Your task to perform on an android device: Show the shopping cart on costco.com. Image 0: 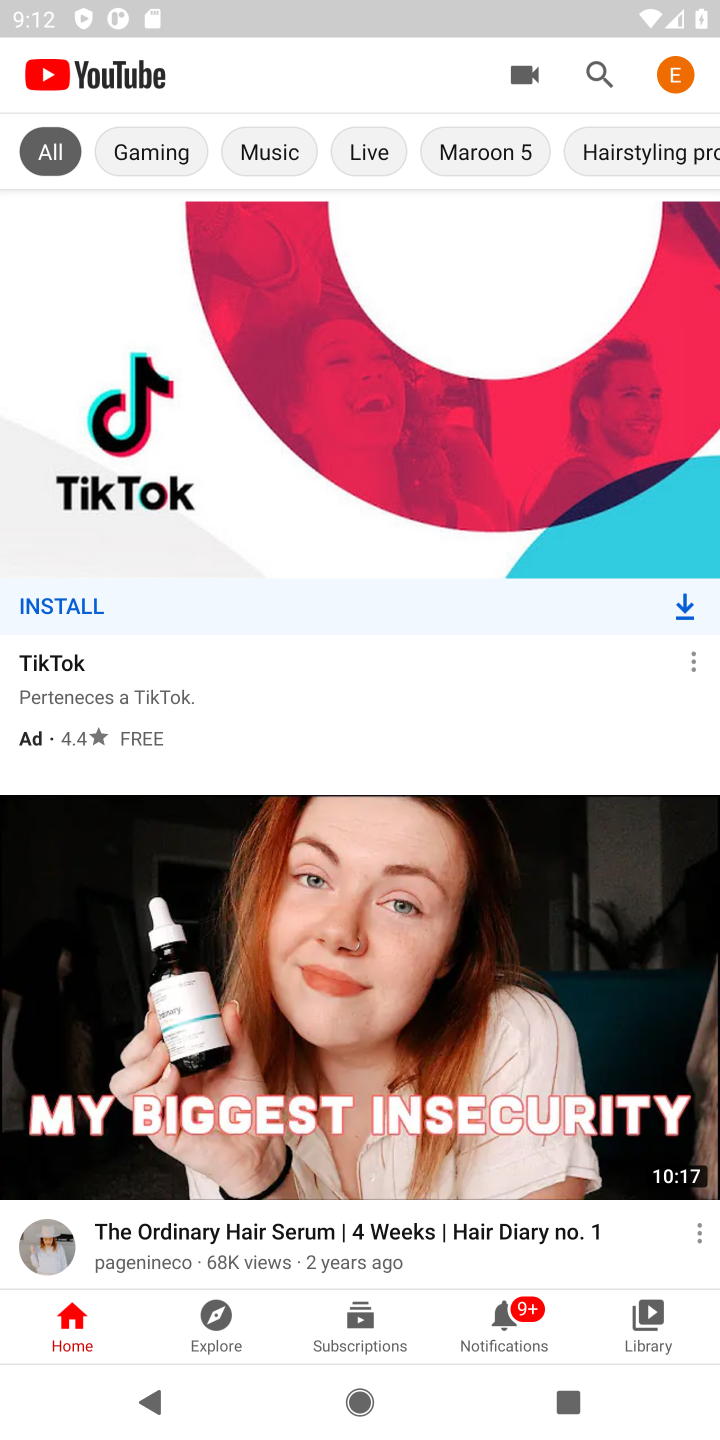
Step 0: press home button
Your task to perform on an android device: Show the shopping cart on costco.com. Image 1: 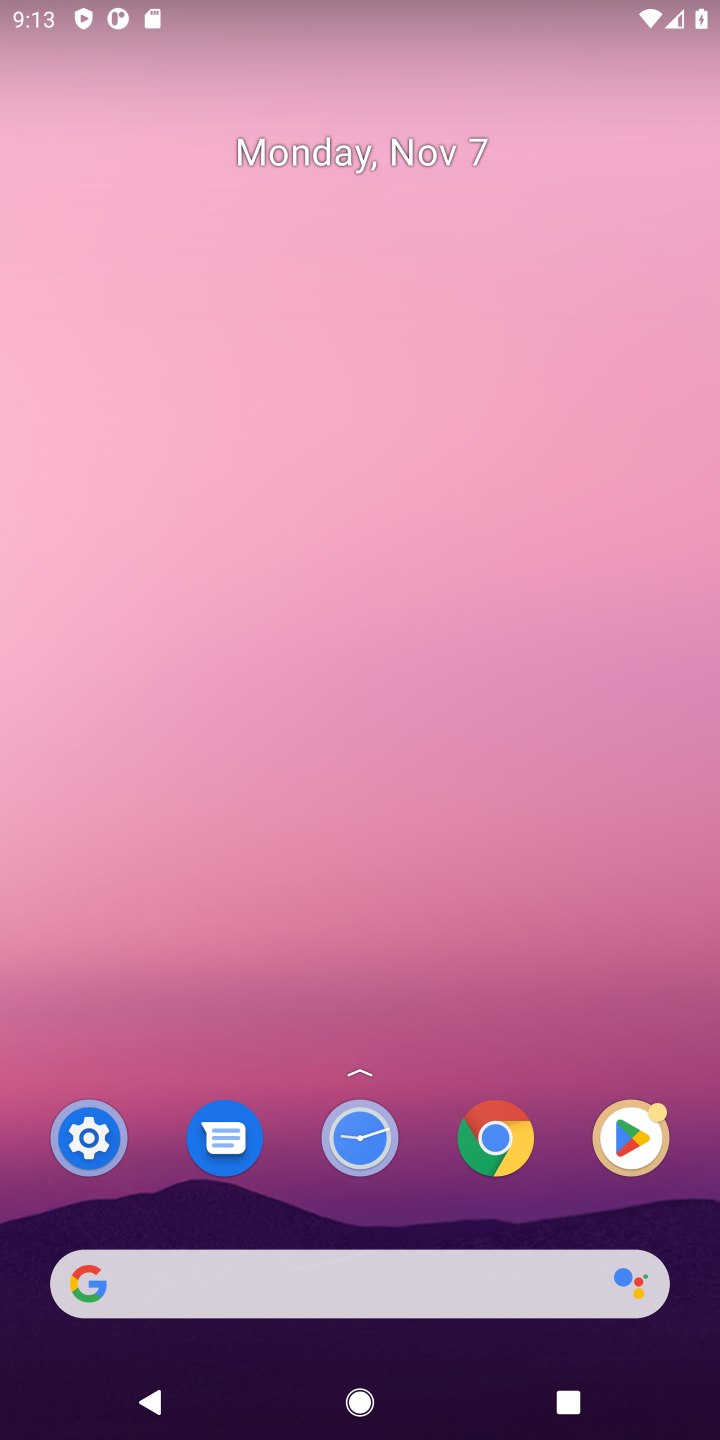
Step 1: drag from (373, 800) to (366, 458)
Your task to perform on an android device: Show the shopping cart on costco.com. Image 2: 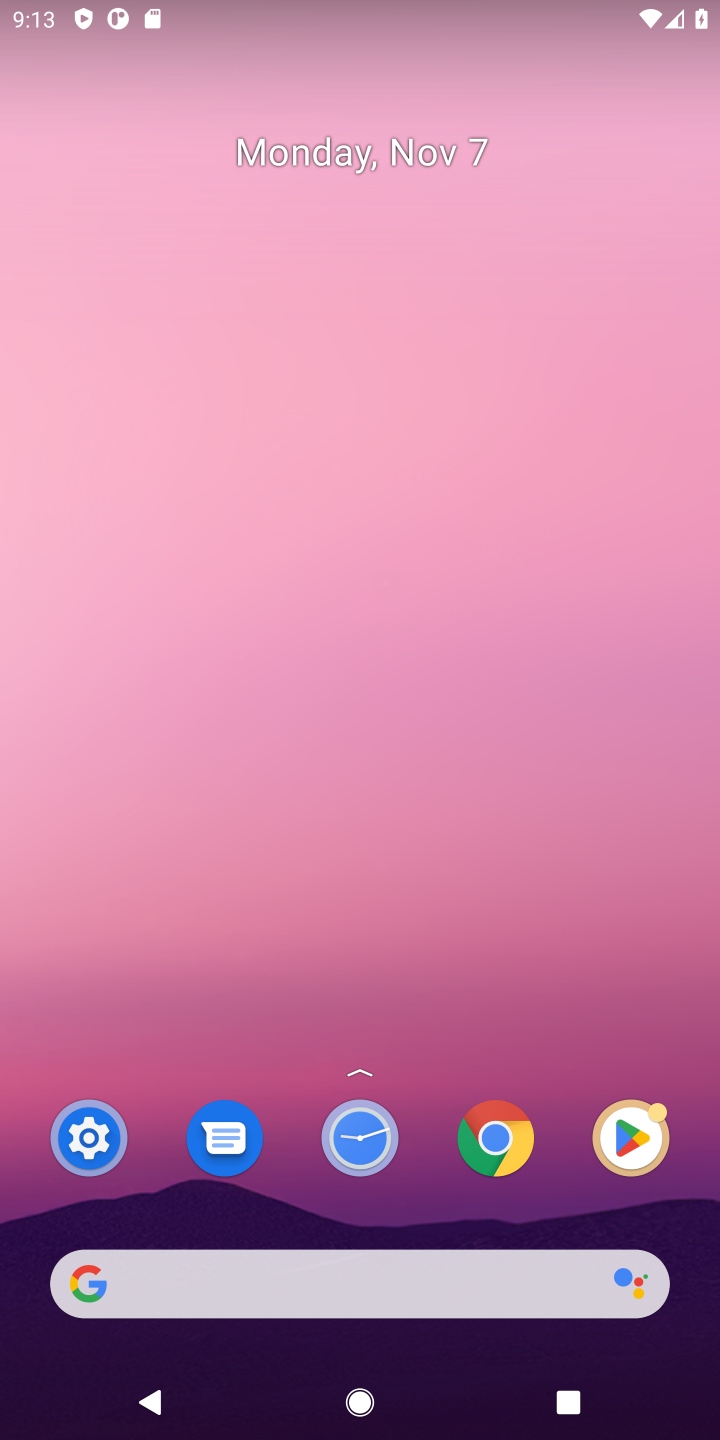
Step 2: drag from (297, 930) to (231, 162)
Your task to perform on an android device: Show the shopping cart on costco.com. Image 3: 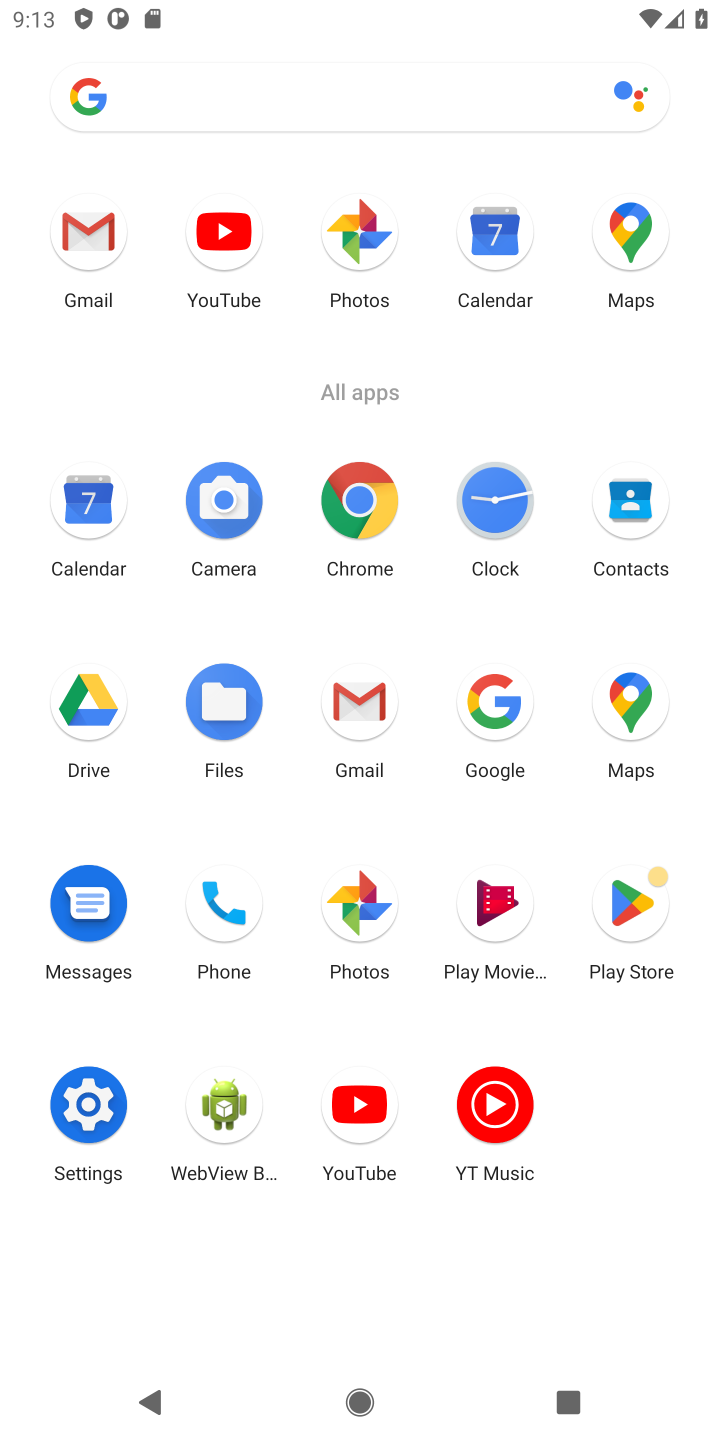
Step 3: click (501, 741)
Your task to perform on an android device: Show the shopping cart on costco.com. Image 4: 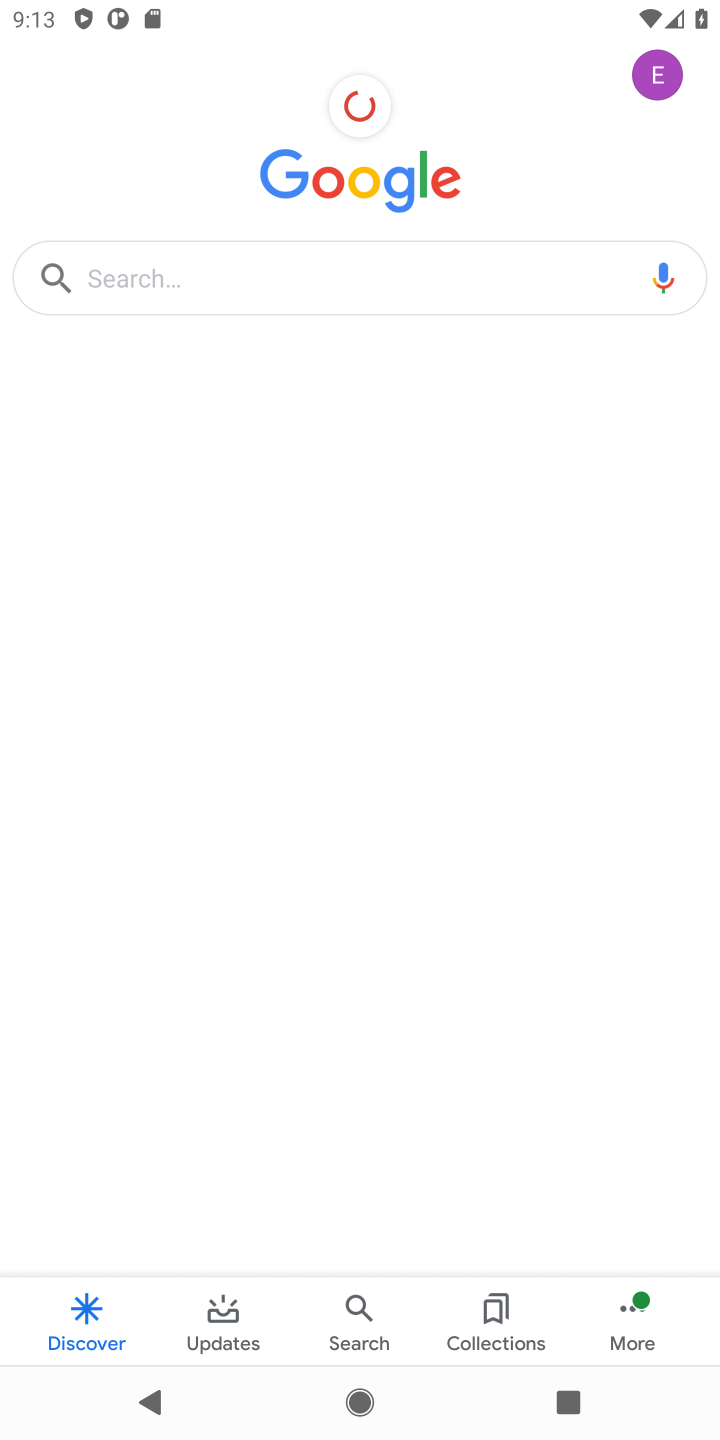
Step 4: click (392, 276)
Your task to perform on an android device: Show the shopping cart on costco.com. Image 5: 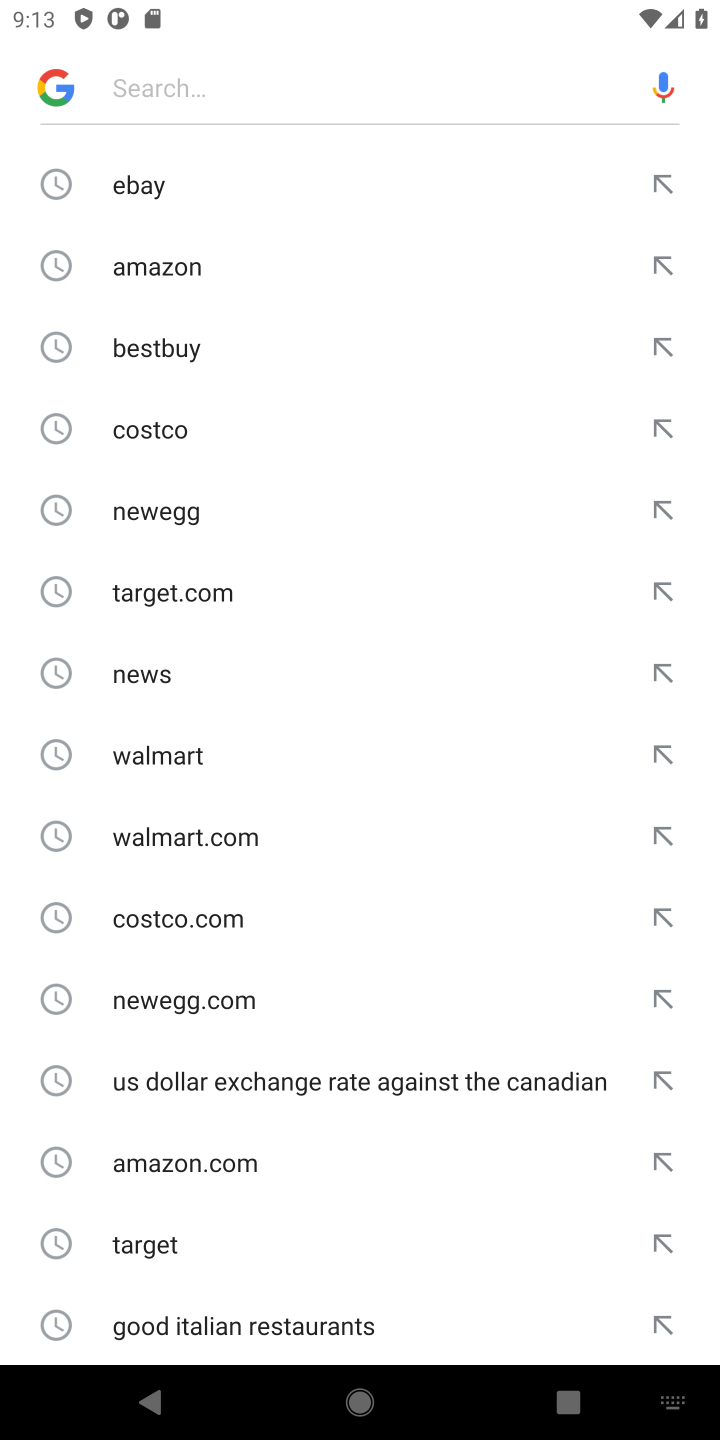
Step 5: type "costco.com"
Your task to perform on an android device: Show the shopping cart on costco.com. Image 6: 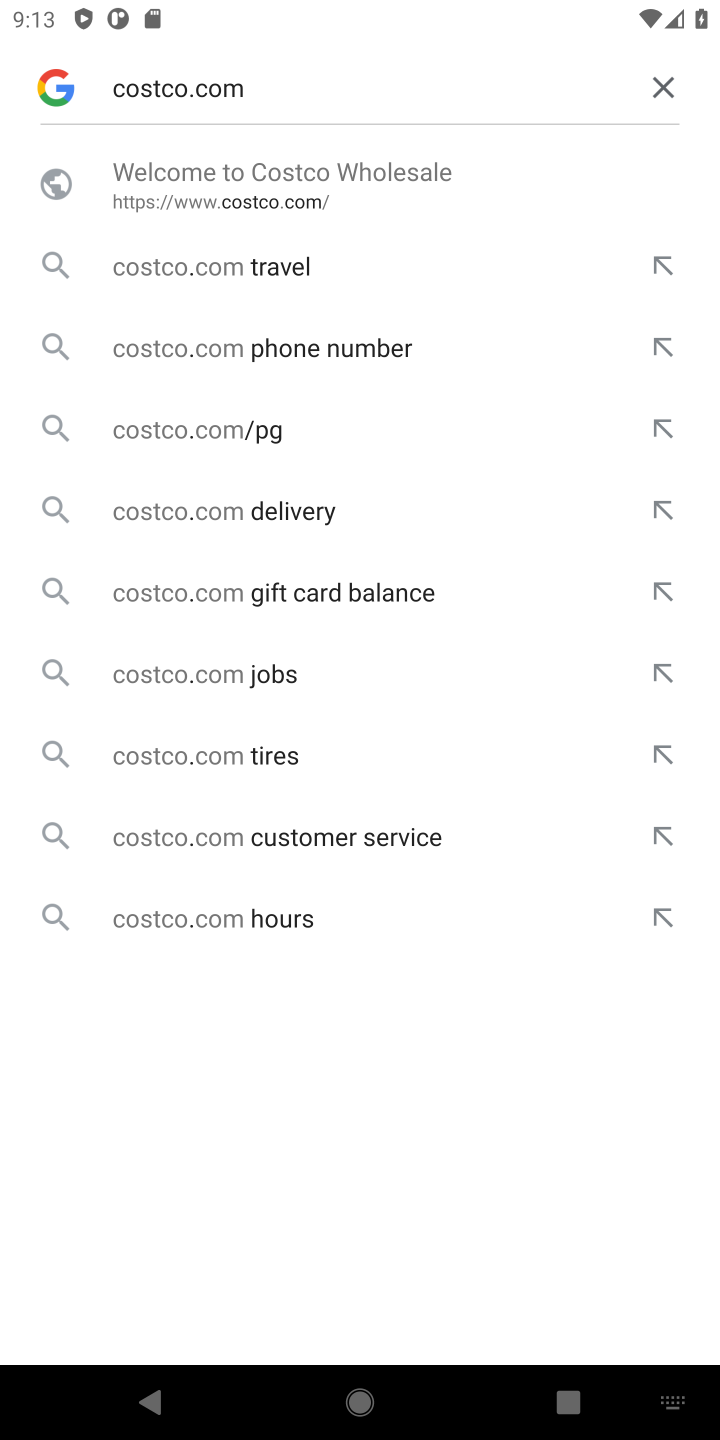
Step 6: click (386, 189)
Your task to perform on an android device: Show the shopping cart on costco.com. Image 7: 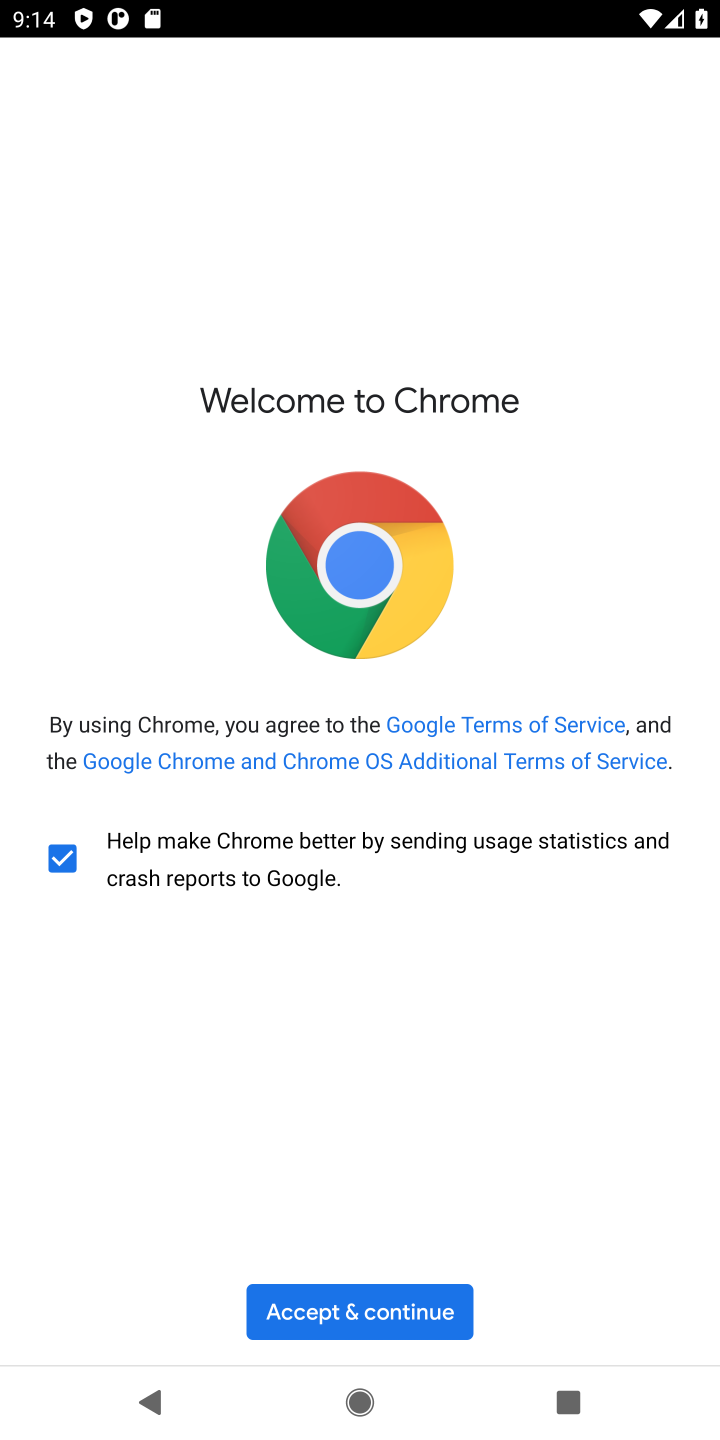
Step 7: click (409, 1330)
Your task to perform on an android device: Show the shopping cart on costco.com. Image 8: 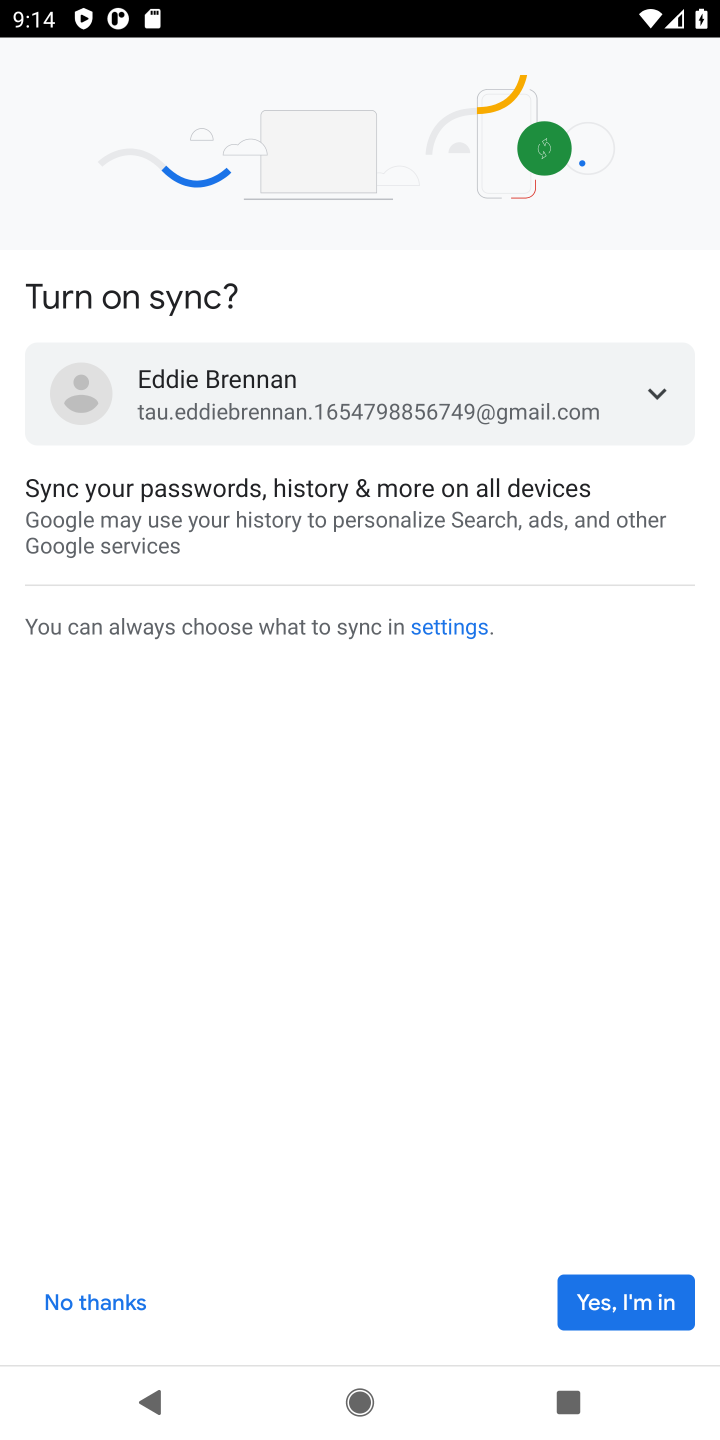
Step 8: click (621, 1313)
Your task to perform on an android device: Show the shopping cart on costco.com. Image 9: 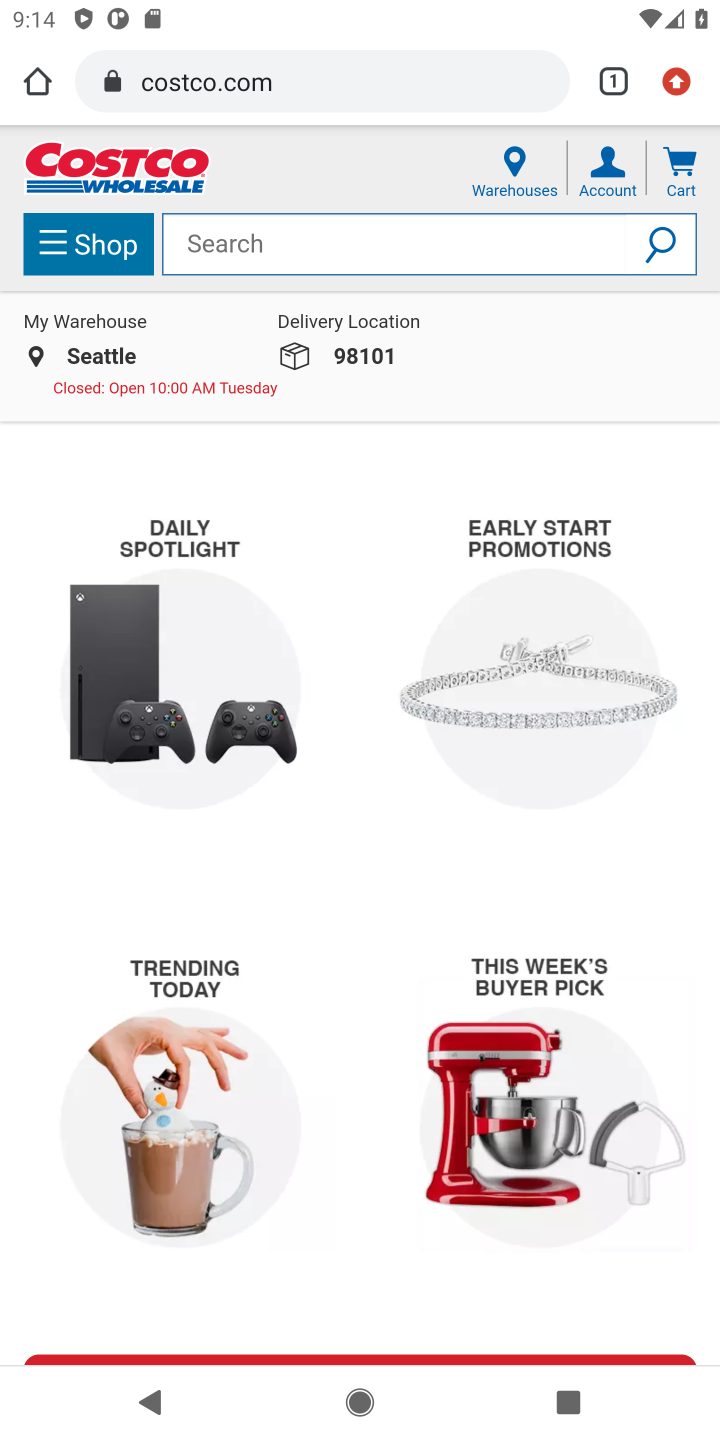
Step 9: click (690, 190)
Your task to perform on an android device: Show the shopping cart on costco.com. Image 10: 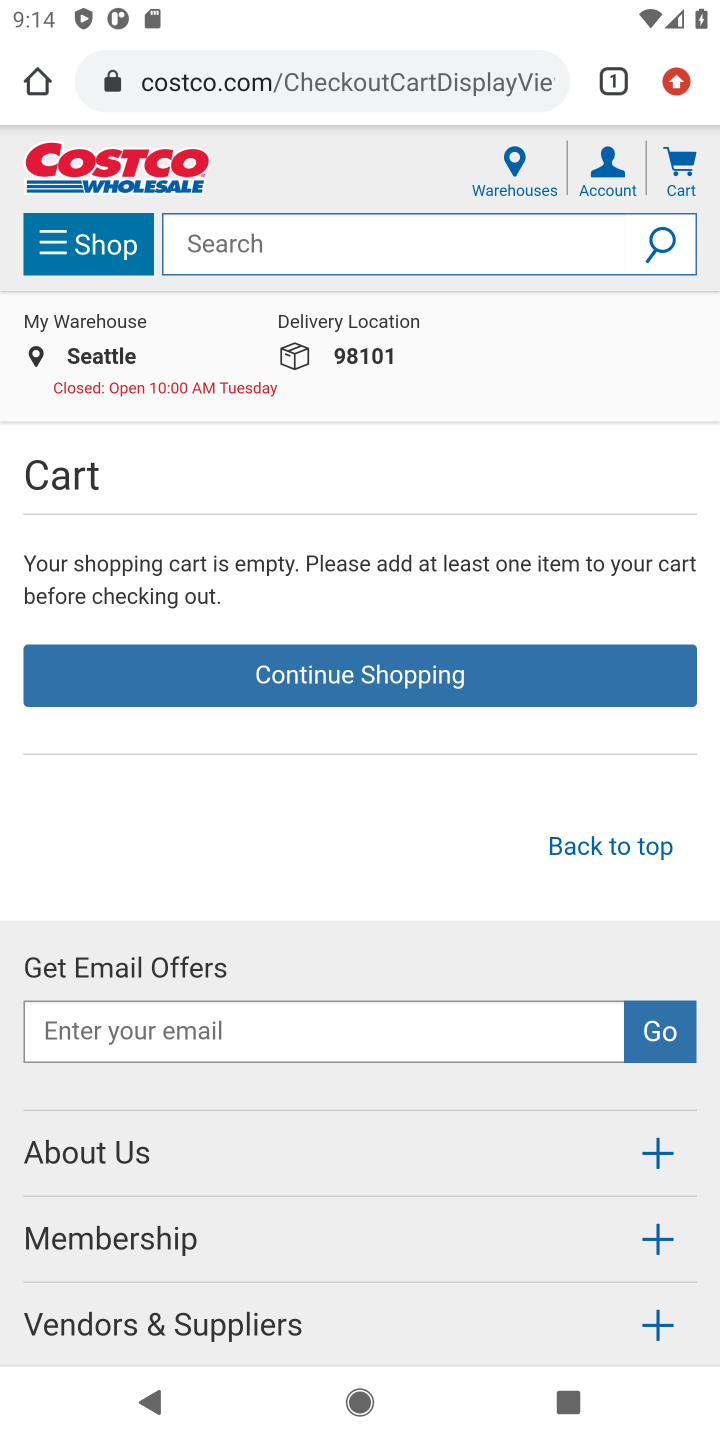
Step 10: task complete